Your task to perform on an android device: turn on notifications settings in the gmail app Image 0: 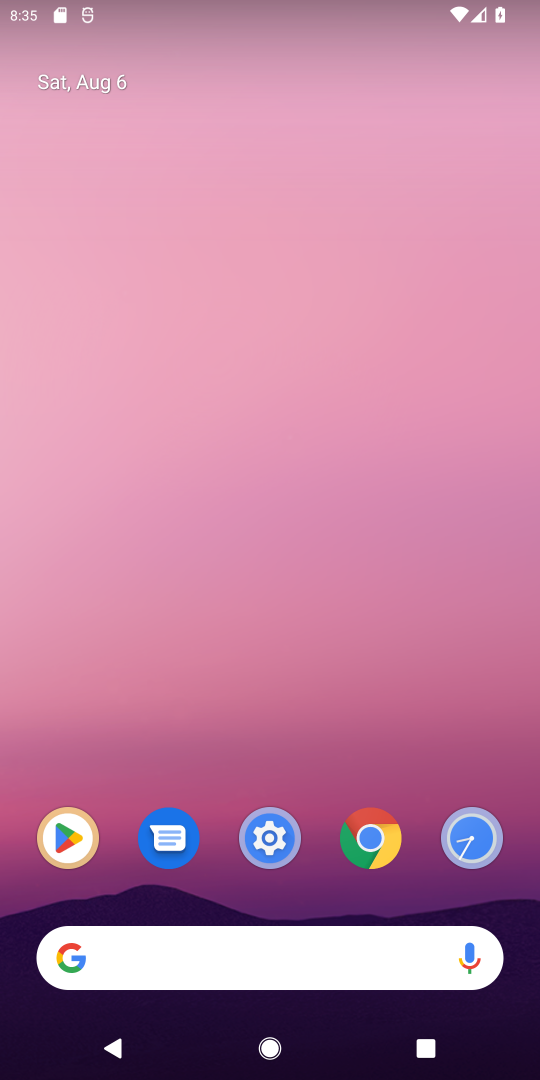
Step 0: click (176, 535)
Your task to perform on an android device: turn on notifications settings in the gmail app Image 1: 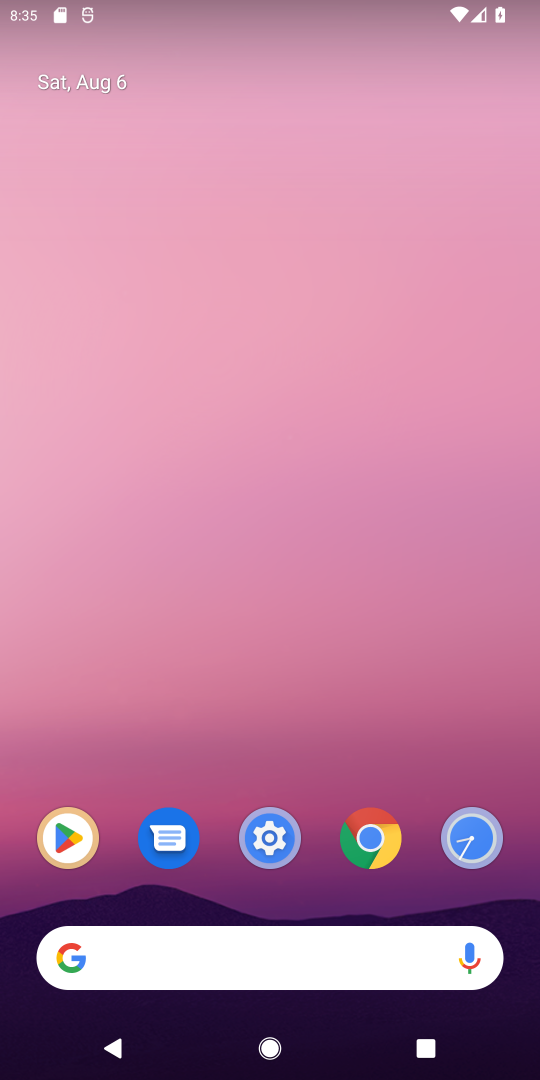
Step 1: drag from (261, 275) to (246, 210)
Your task to perform on an android device: turn on notifications settings in the gmail app Image 2: 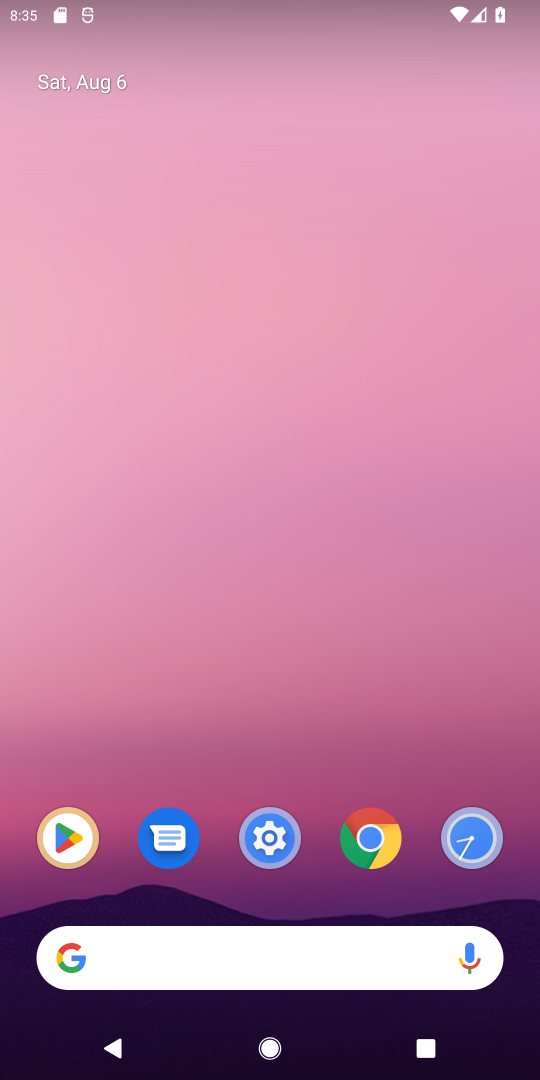
Step 2: drag from (310, 604) to (382, 299)
Your task to perform on an android device: turn on notifications settings in the gmail app Image 3: 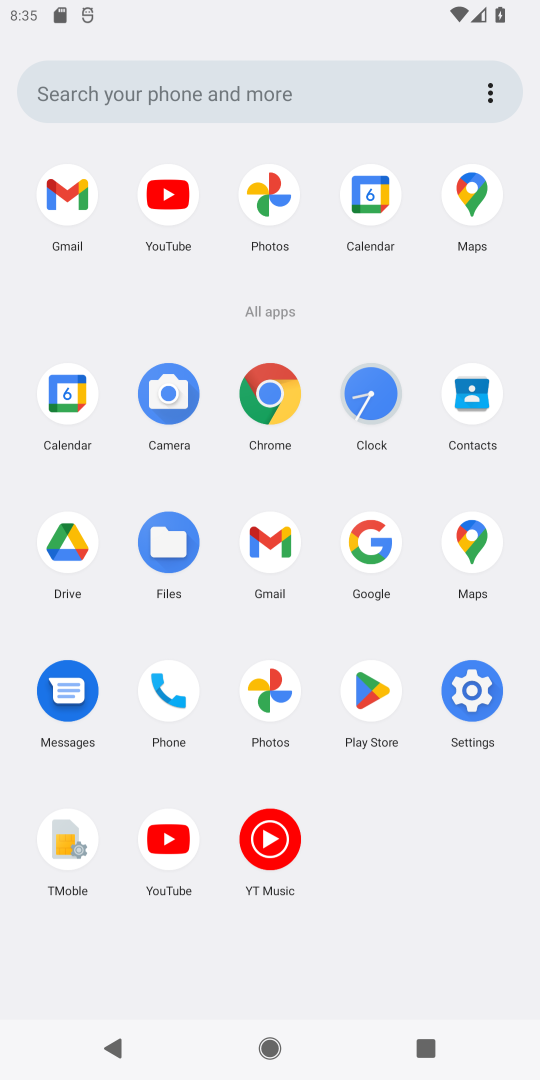
Step 3: drag from (346, 901) to (220, 279)
Your task to perform on an android device: turn on notifications settings in the gmail app Image 4: 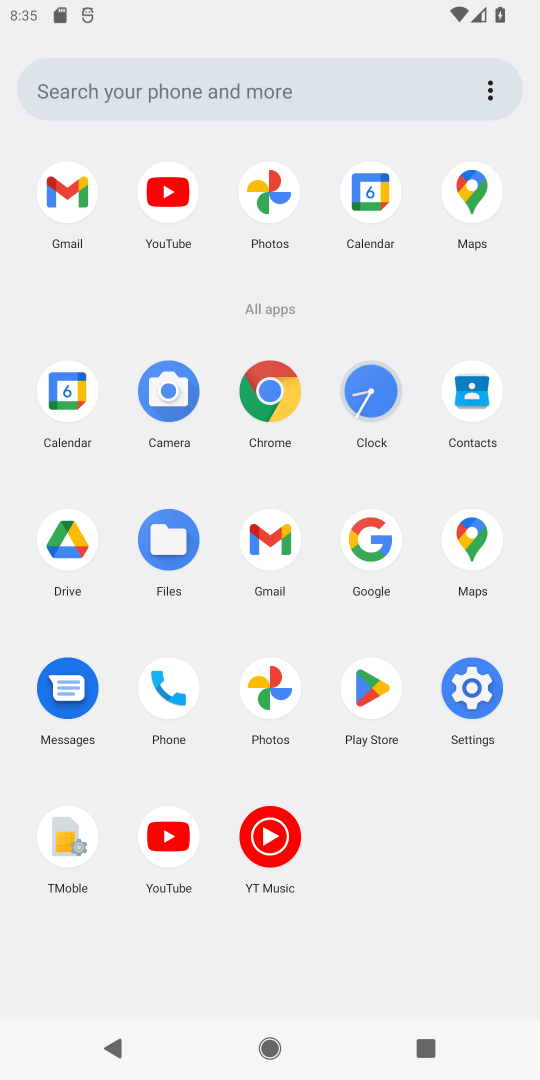
Step 4: click (276, 526)
Your task to perform on an android device: turn on notifications settings in the gmail app Image 5: 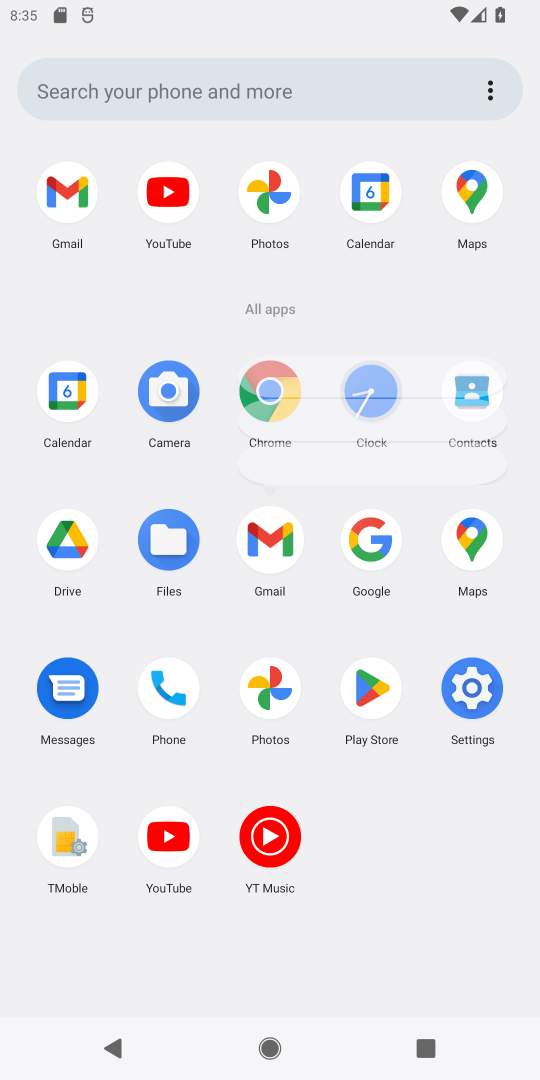
Step 5: click (276, 526)
Your task to perform on an android device: turn on notifications settings in the gmail app Image 6: 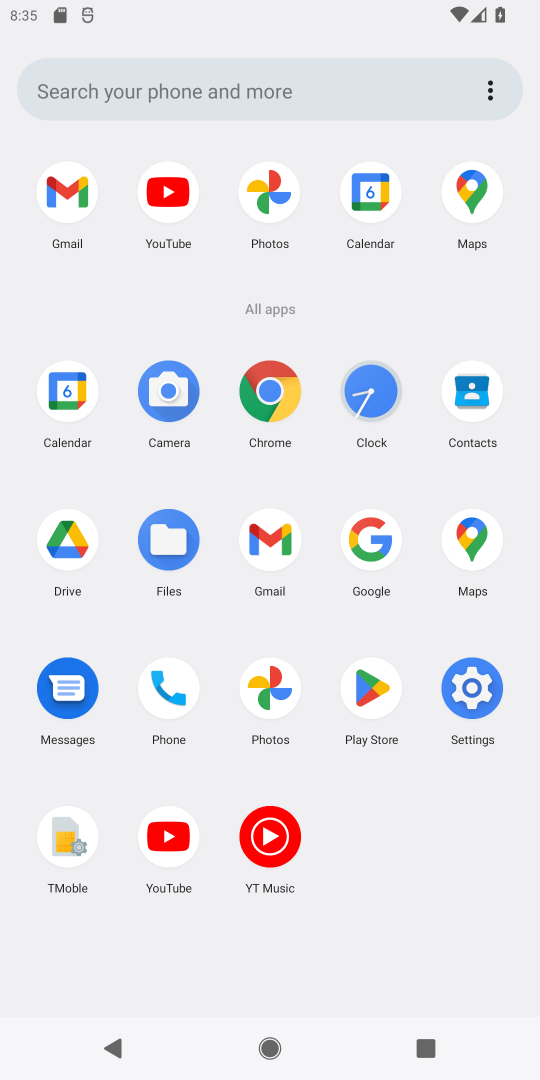
Step 6: click (276, 526)
Your task to perform on an android device: turn on notifications settings in the gmail app Image 7: 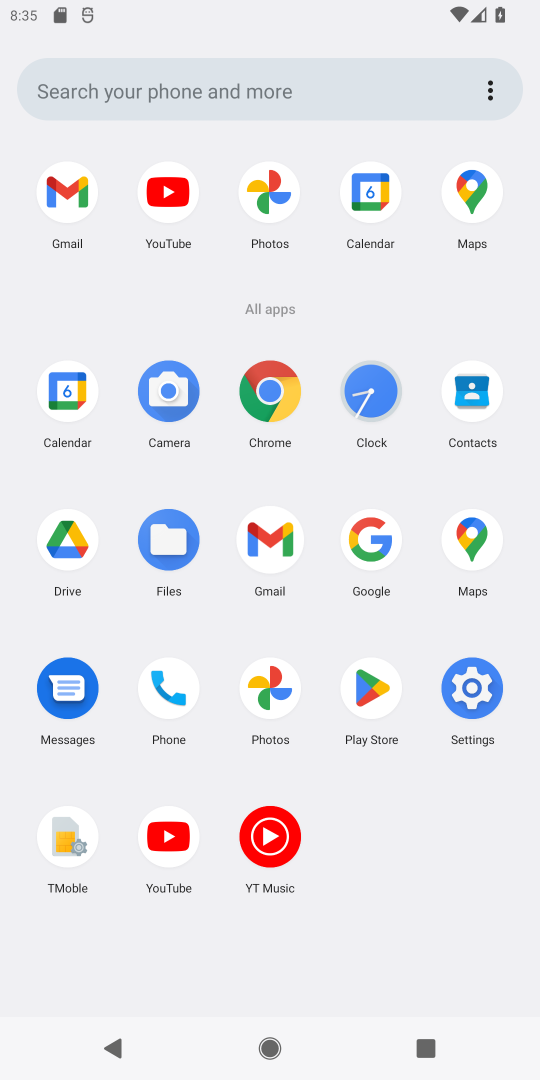
Step 7: click (275, 528)
Your task to perform on an android device: turn on notifications settings in the gmail app Image 8: 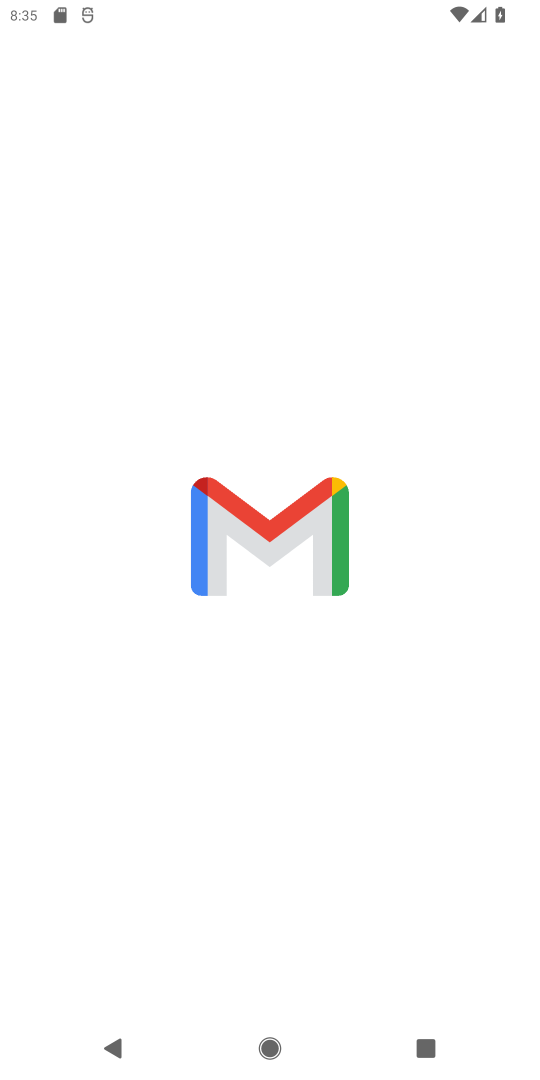
Step 8: click (272, 532)
Your task to perform on an android device: turn on notifications settings in the gmail app Image 9: 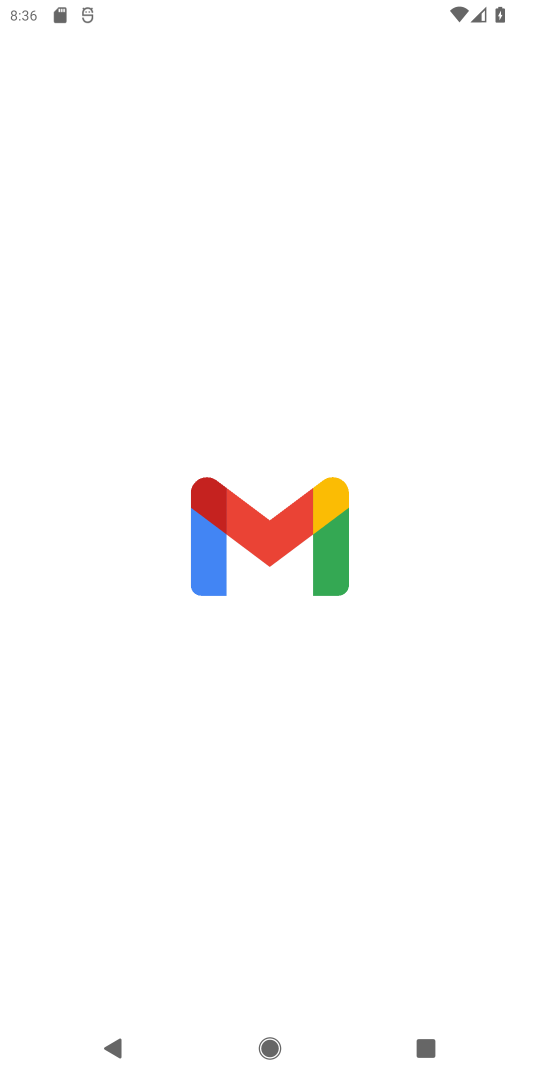
Step 9: click (275, 551)
Your task to perform on an android device: turn on notifications settings in the gmail app Image 10: 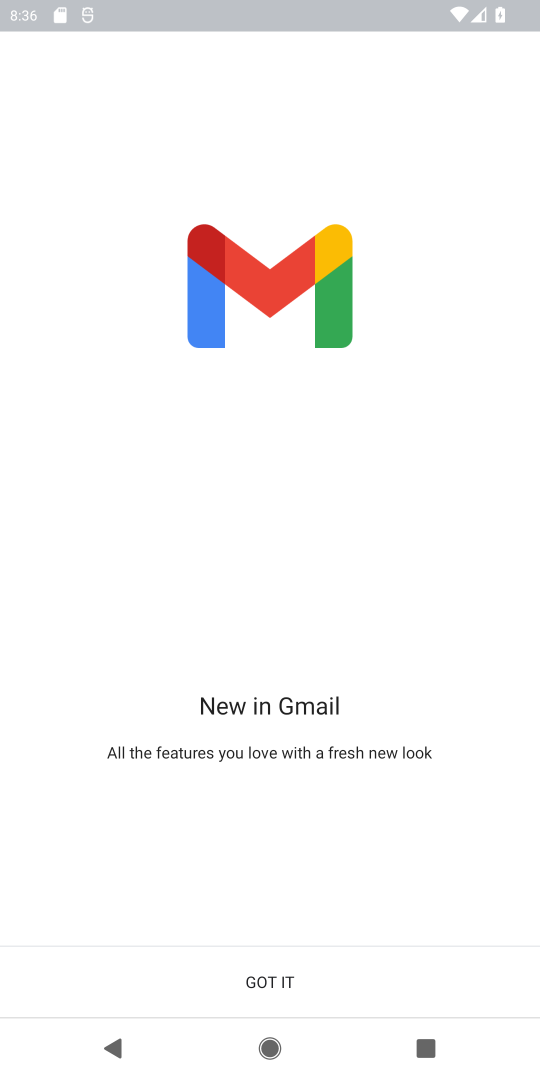
Step 10: click (270, 988)
Your task to perform on an android device: turn on notifications settings in the gmail app Image 11: 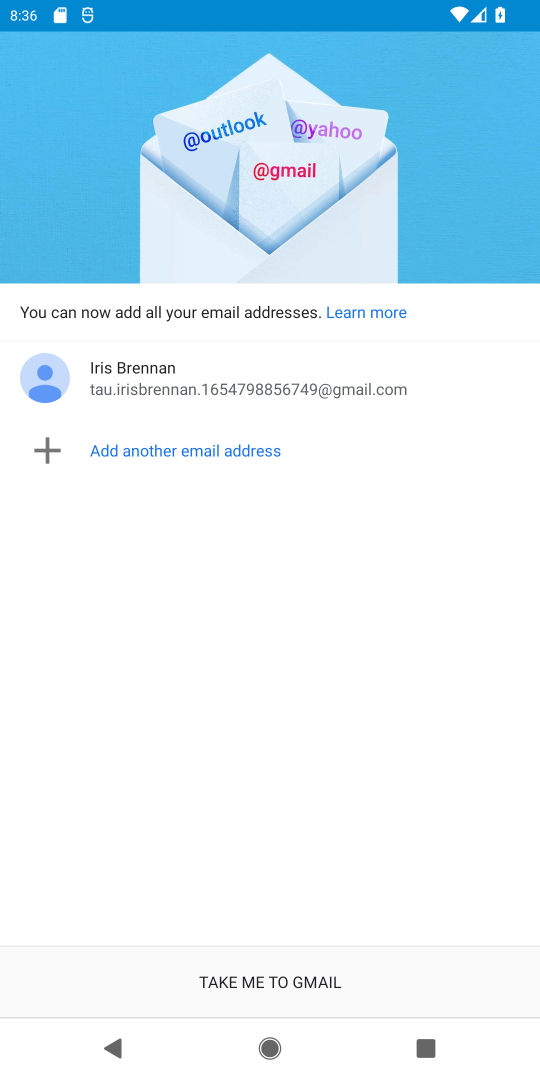
Step 11: click (148, 463)
Your task to perform on an android device: turn on notifications settings in the gmail app Image 12: 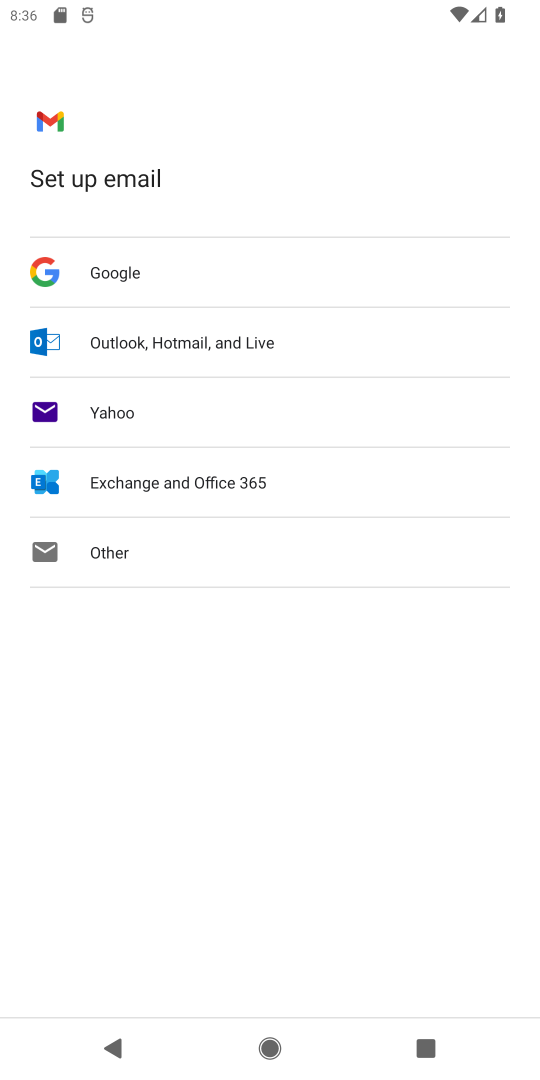
Step 12: press back button
Your task to perform on an android device: turn on notifications settings in the gmail app Image 13: 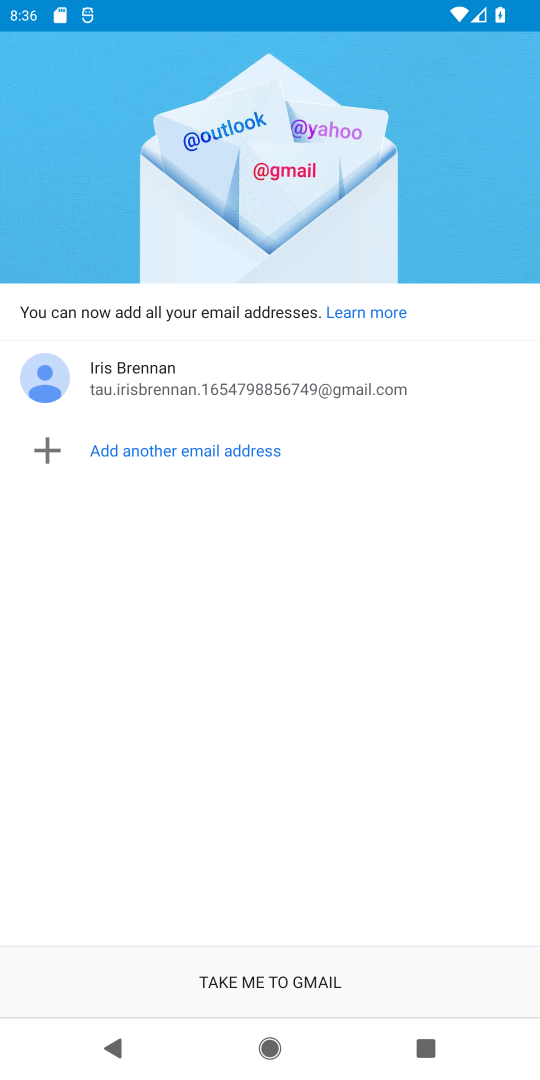
Step 13: click (278, 980)
Your task to perform on an android device: turn on notifications settings in the gmail app Image 14: 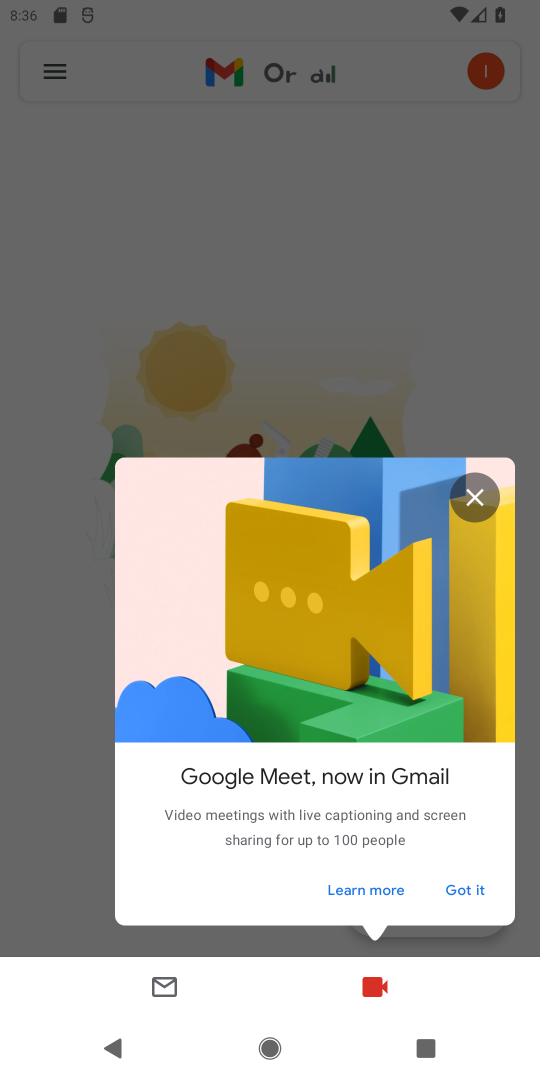
Step 14: click (478, 493)
Your task to perform on an android device: turn on notifications settings in the gmail app Image 15: 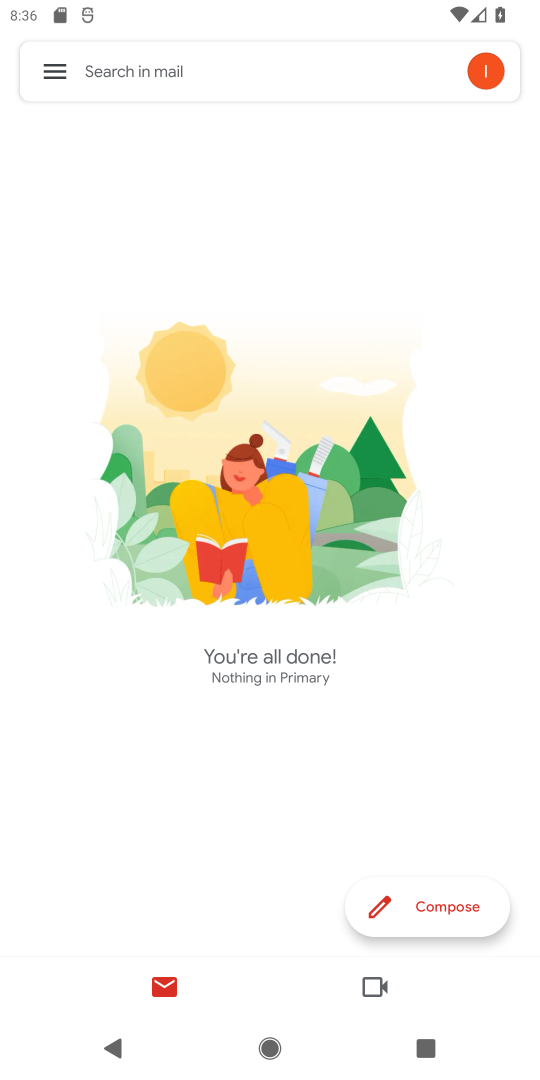
Step 15: click (47, 87)
Your task to perform on an android device: turn on notifications settings in the gmail app Image 16: 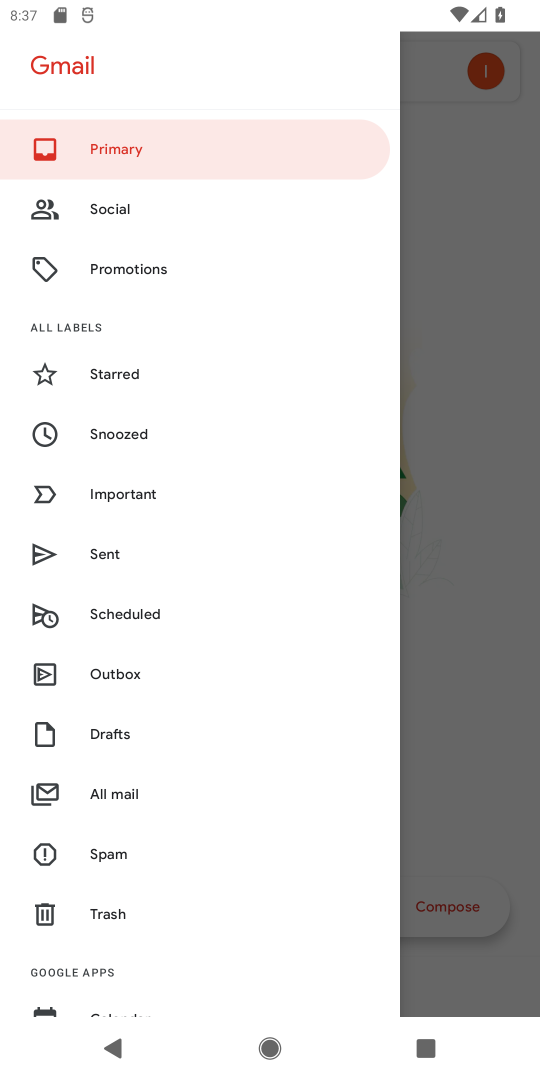
Step 16: drag from (163, 747) to (128, 416)
Your task to perform on an android device: turn on notifications settings in the gmail app Image 17: 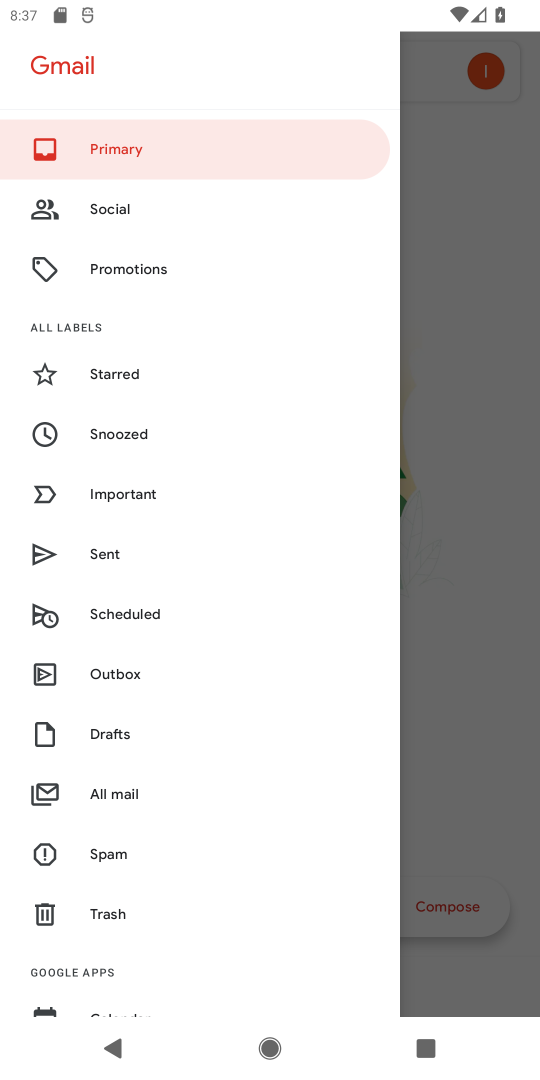
Step 17: drag from (182, 632) to (178, 432)
Your task to perform on an android device: turn on notifications settings in the gmail app Image 18: 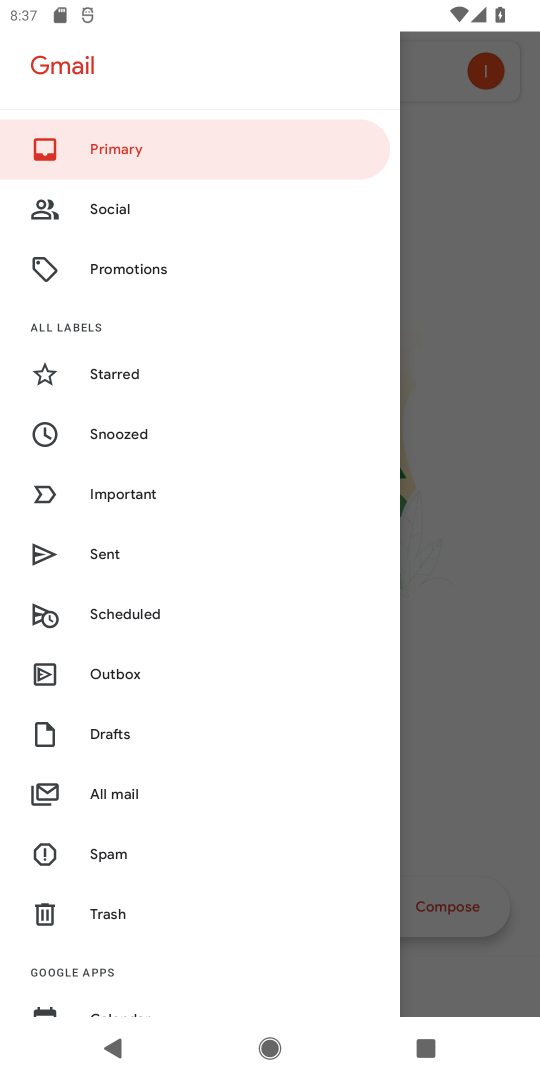
Step 18: drag from (176, 627) to (298, 166)
Your task to perform on an android device: turn on notifications settings in the gmail app Image 19: 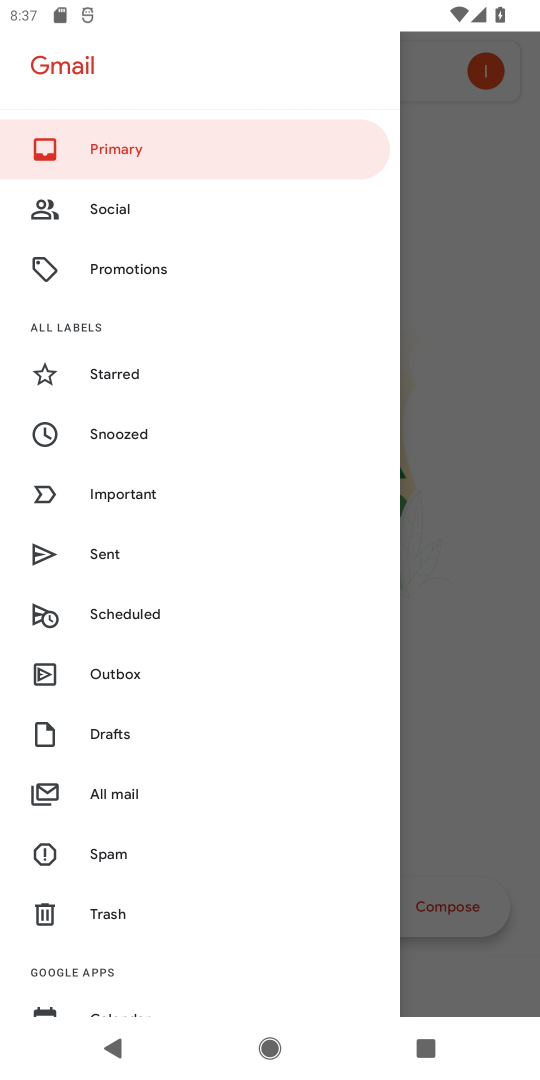
Step 19: drag from (293, 892) to (94, 260)
Your task to perform on an android device: turn on notifications settings in the gmail app Image 20: 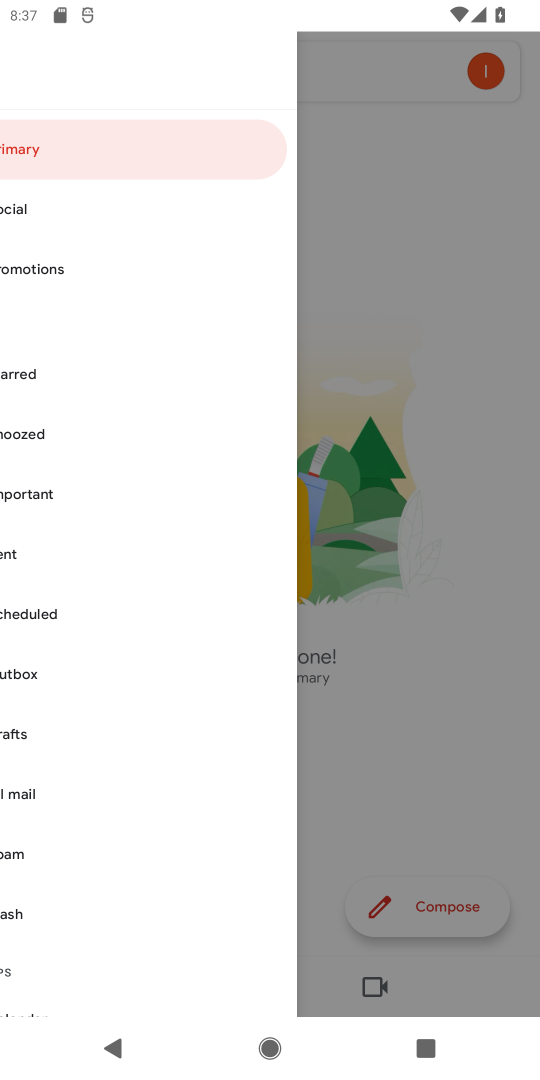
Step 20: drag from (134, 755) to (145, 316)
Your task to perform on an android device: turn on notifications settings in the gmail app Image 21: 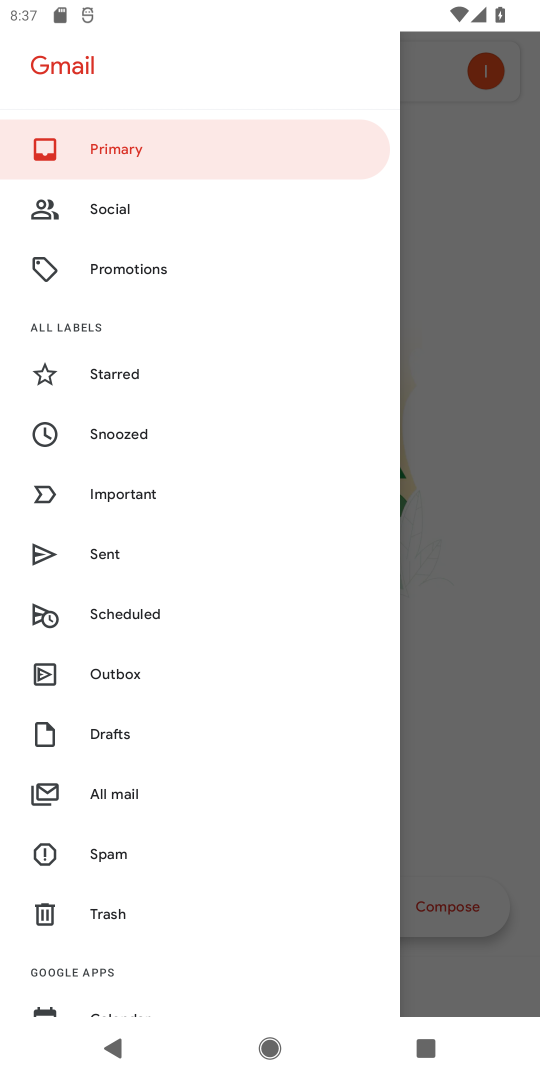
Step 21: drag from (99, 837) to (134, 363)
Your task to perform on an android device: turn on notifications settings in the gmail app Image 22: 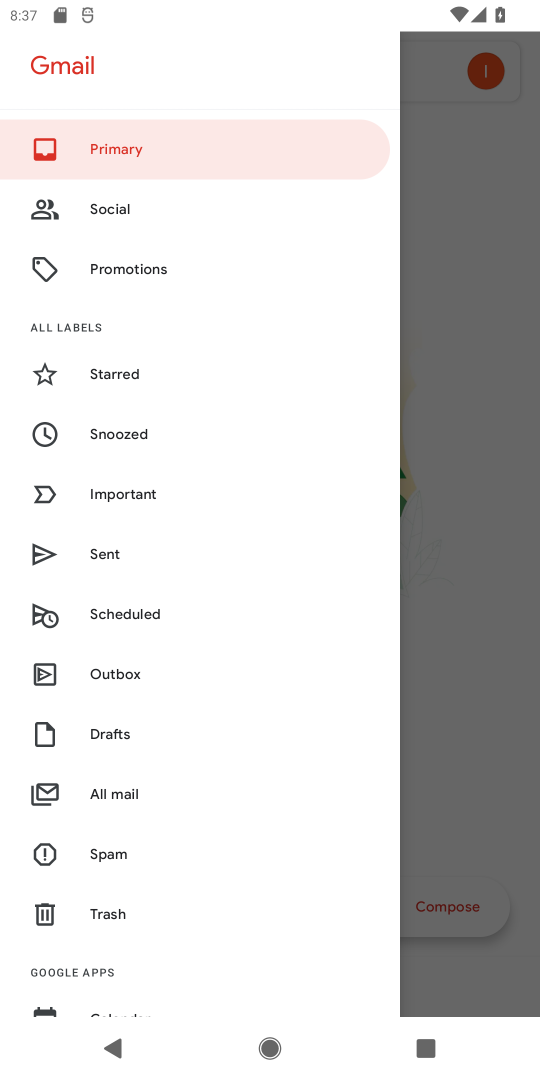
Step 22: drag from (126, 667) to (126, 225)
Your task to perform on an android device: turn on notifications settings in the gmail app Image 23: 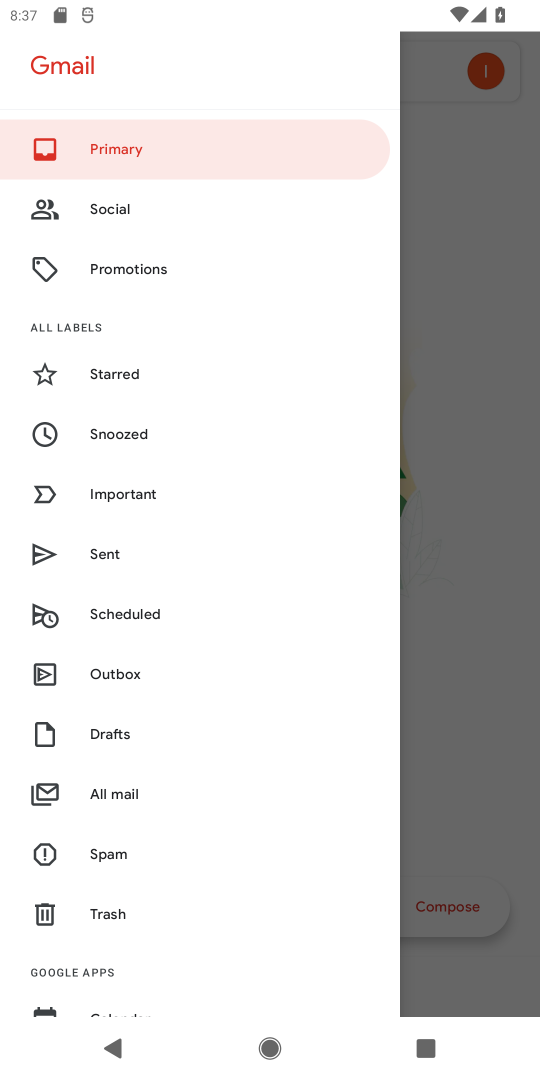
Step 23: drag from (108, 796) to (227, 386)
Your task to perform on an android device: turn on notifications settings in the gmail app Image 24: 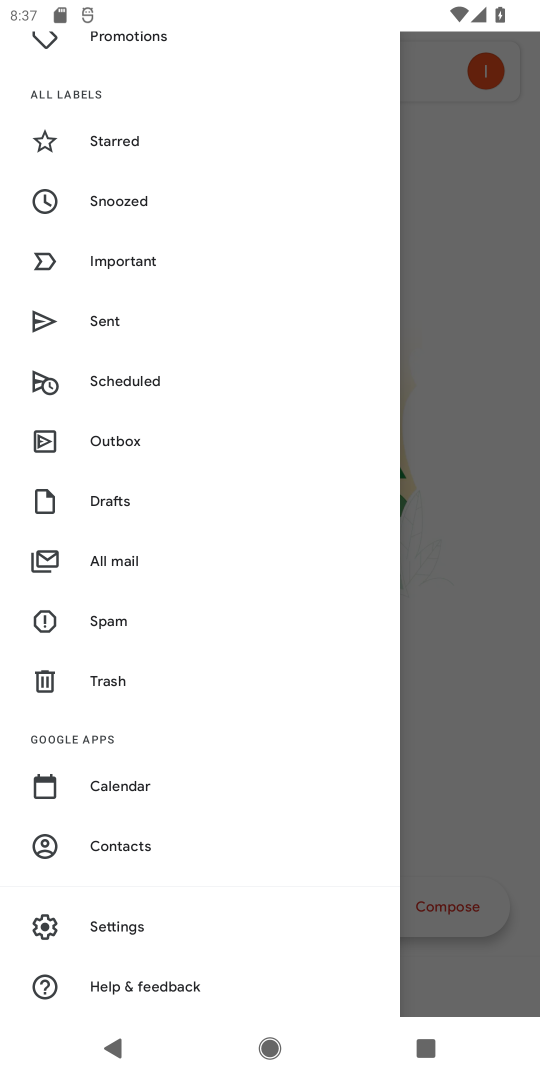
Step 24: click (113, 917)
Your task to perform on an android device: turn on notifications settings in the gmail app Image 25: 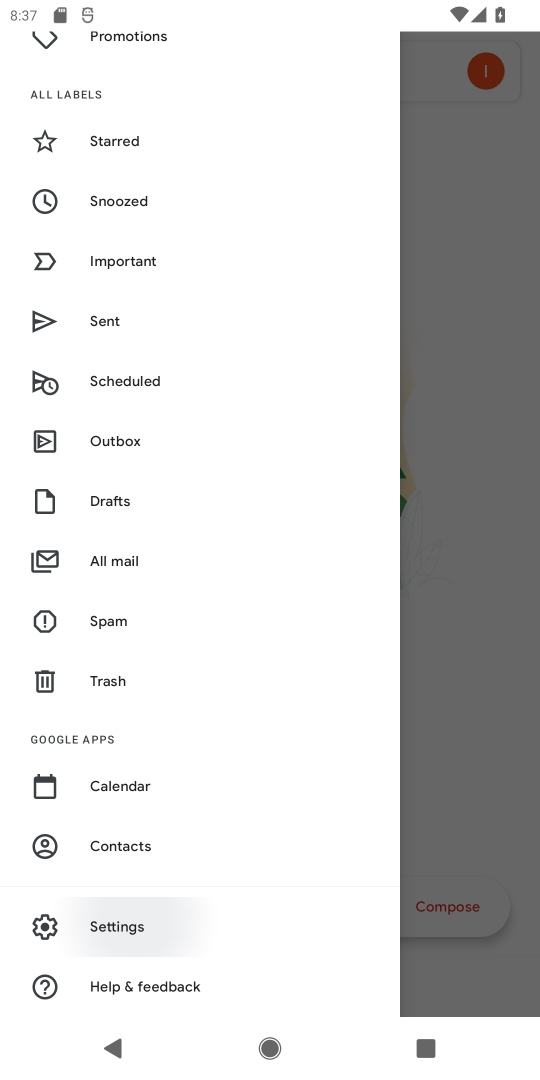
Step 25: click (111, 925)
Your task to perform on an android device: turn on notifications settings in the gmail app Image 26: 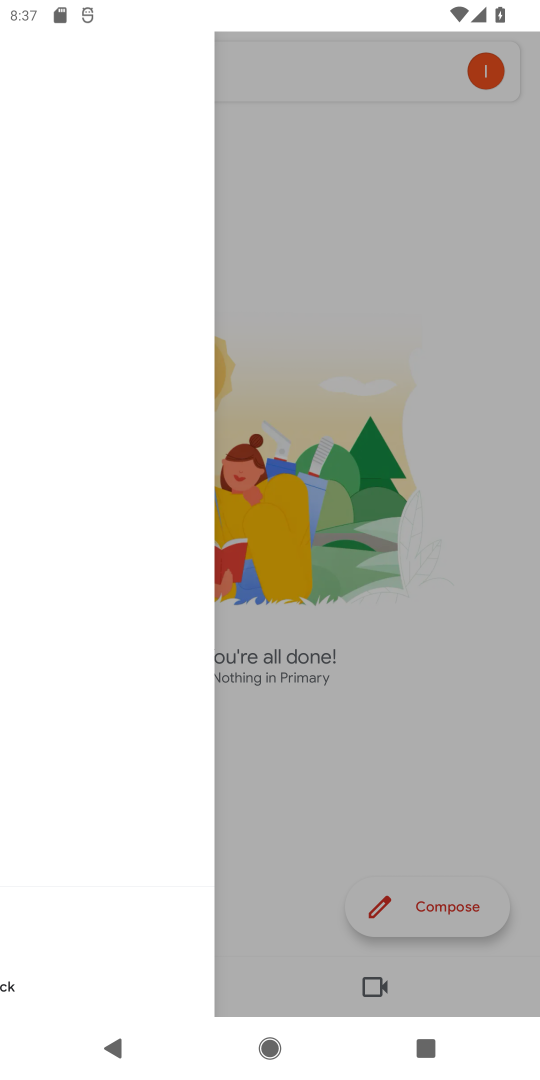
Step 26: click (111, 925)
Your task to perform on an android device: turn on notifications settings in the gmail app Image 27: 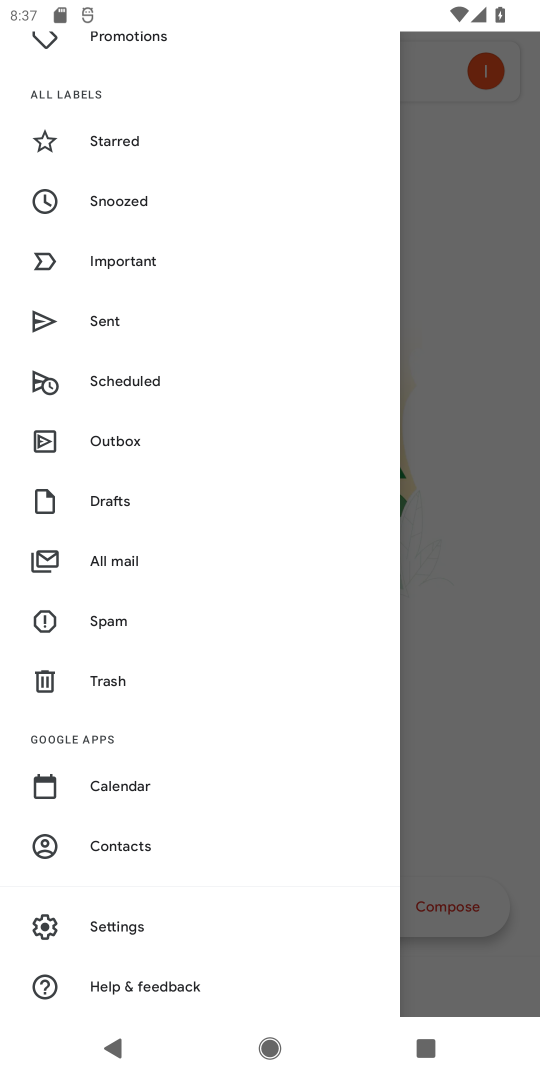
Step 27: click (106, 925)
Your task to perform on an android device: turn on notifications settings in the gmail app Image 28: 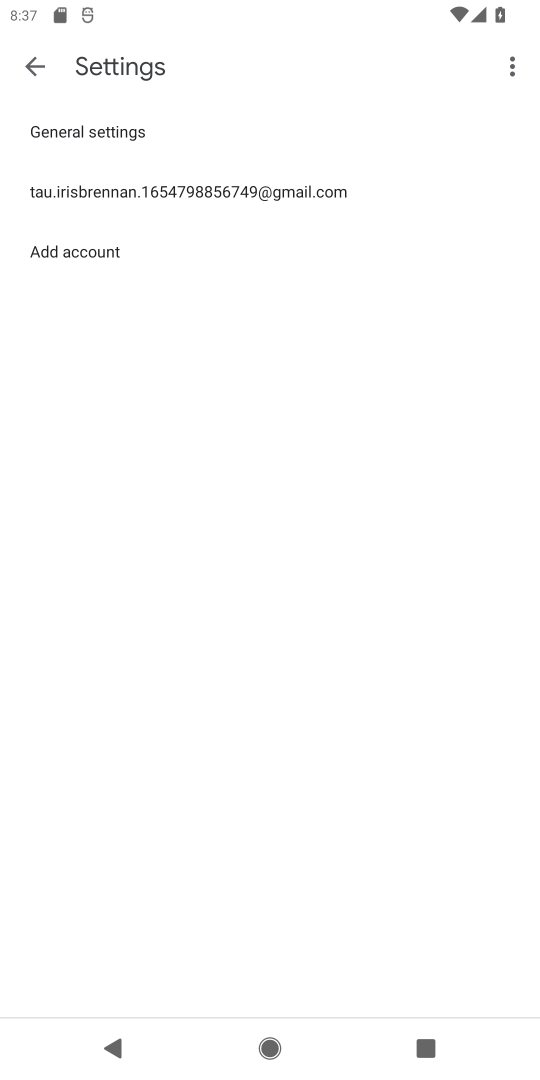
Step 28: click (157, 178)
Your task to perform on an android device: turn on notifications settings in the gmail app Image 29: 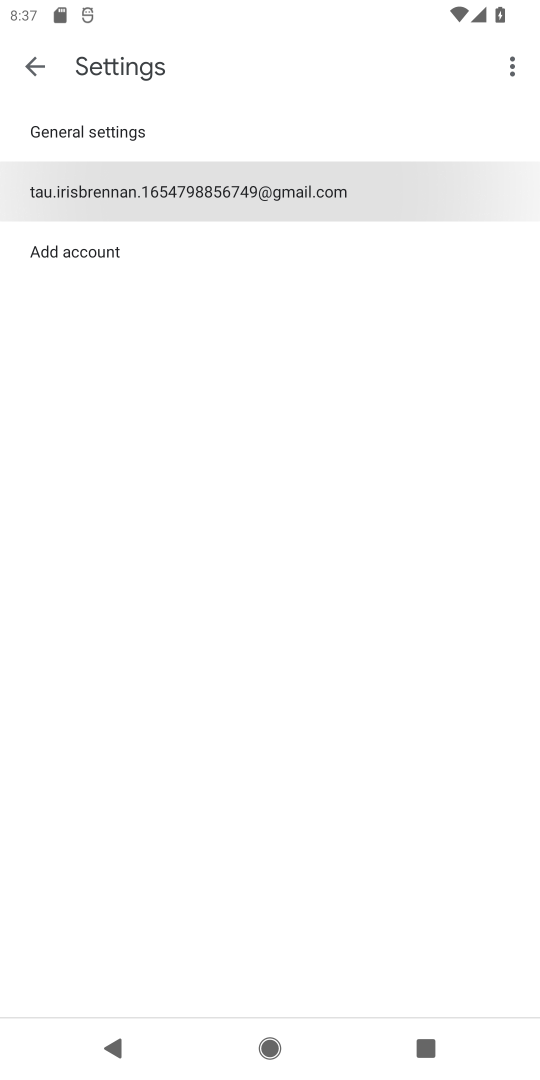
Step 29: click (180, 221)
Your task to perform on an android device: turn on notifications settings in the gmail app Image 30: 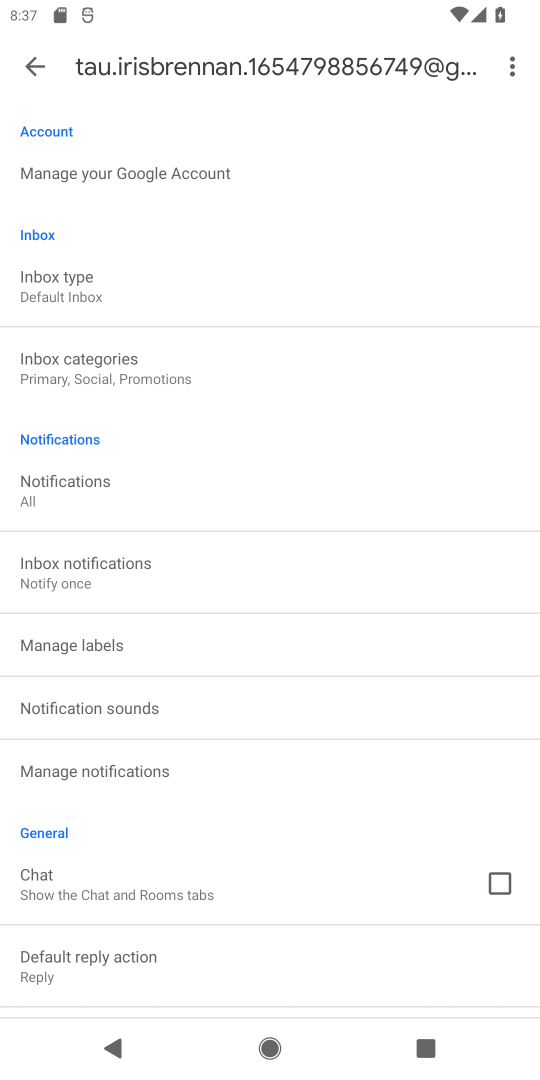
Step 30: task complete